Your task to perform on an android device: toggle translation in the chrome app Image 0: 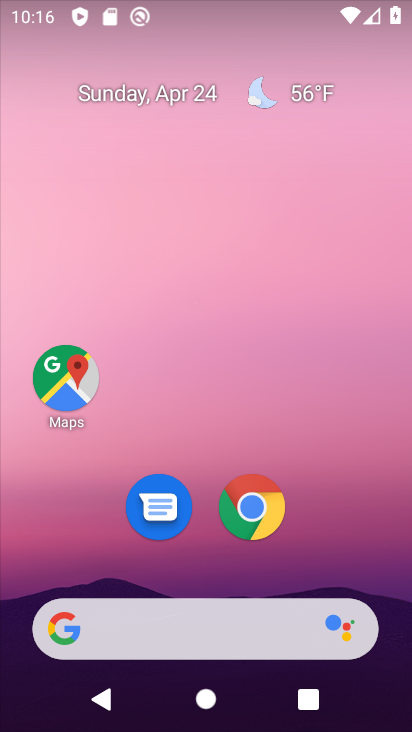
Step 0: click (249, 504)
Your task to perform on an android device: toggle translation in the chrome app Image 1: 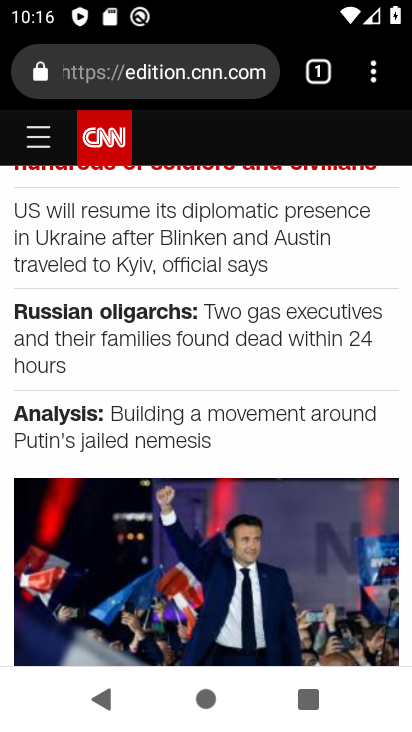
Step 1: click (373, 75)
Your task to perform on an android device: toggle translation in the chrome app Image 2: 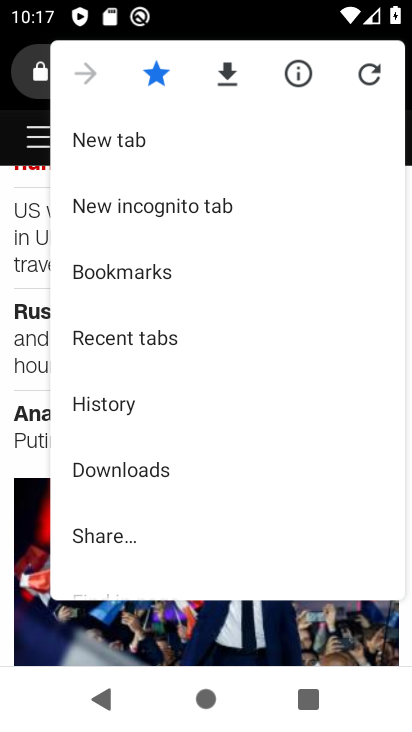
Step 2: drag from (207, 537) to (261, 175)
Your task to perform on an android device: toggle translation in the chrome app Image 3: 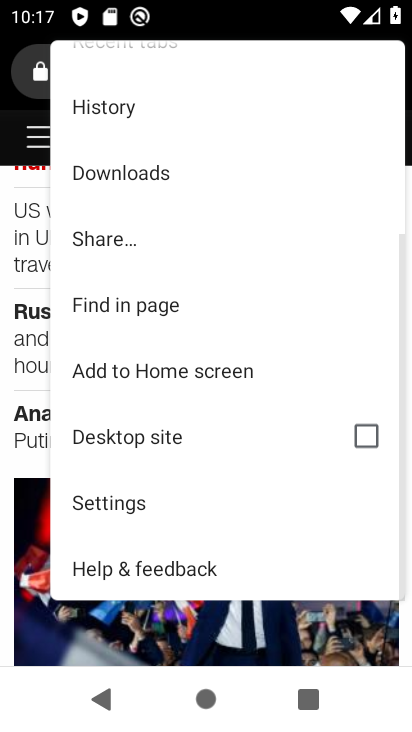
Step 3: drag from (248, 523) to (265, 200)
Your task to perform on an android device: toggle translation in the chrome app Image 4: 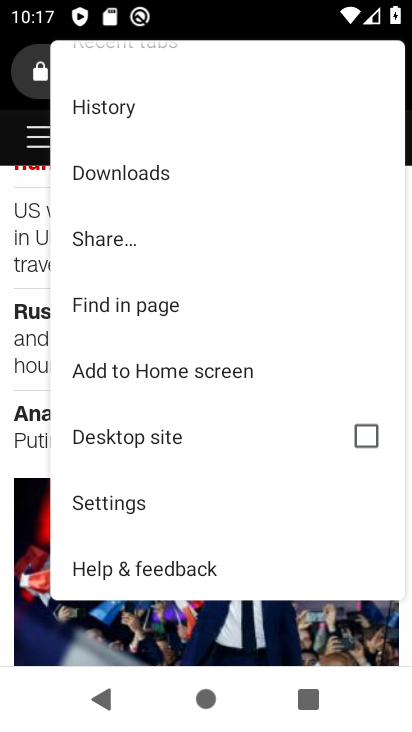
Step 4: click (89, 492)
Your task to perform on an android device: toggle translation in the chrome app Image 5: 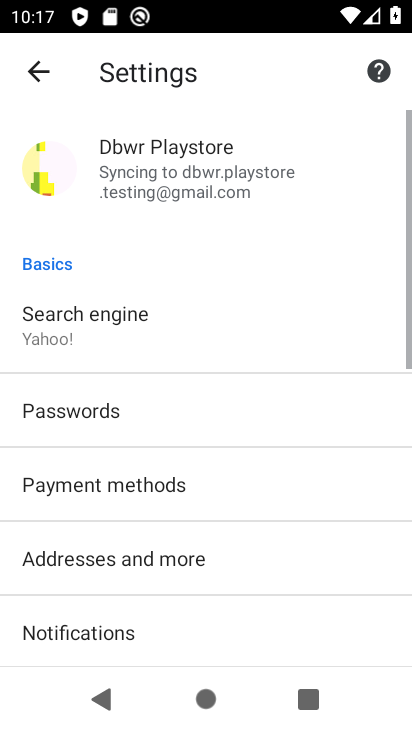
Step 5: drag from (259, 601) to (268, 145)
Your task to perform on an android device: toggle translation in the chrome app Image 6: 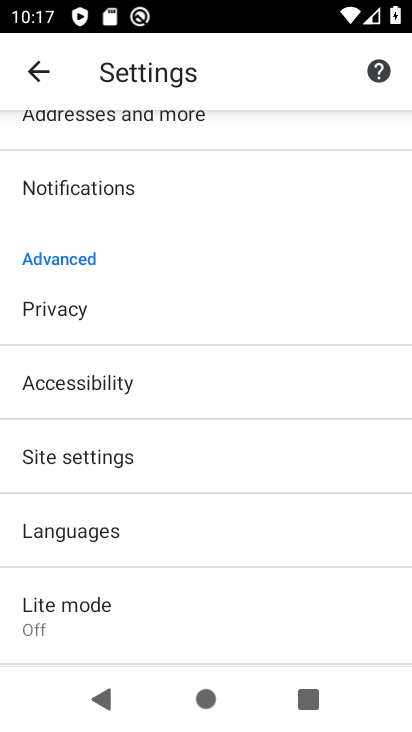
Step 6: drag from (221, 552) to (267, 123)
Your task to perform on an android device: toggle translation in the chrome app Image 7: 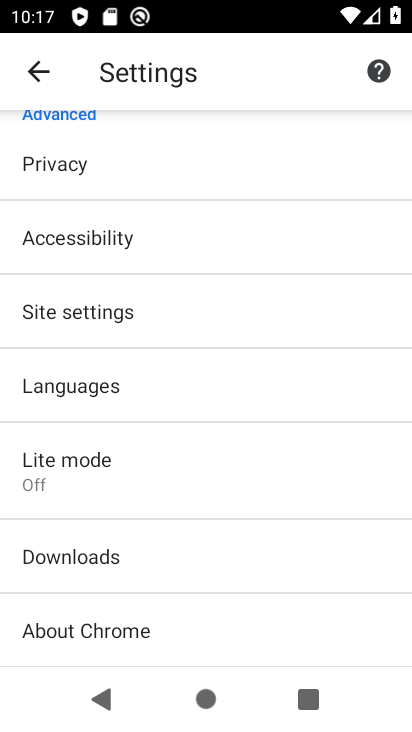
Step 7: click (52, 388)
Your task to perform on an android device: toggle translation in the chrome app Image 8: 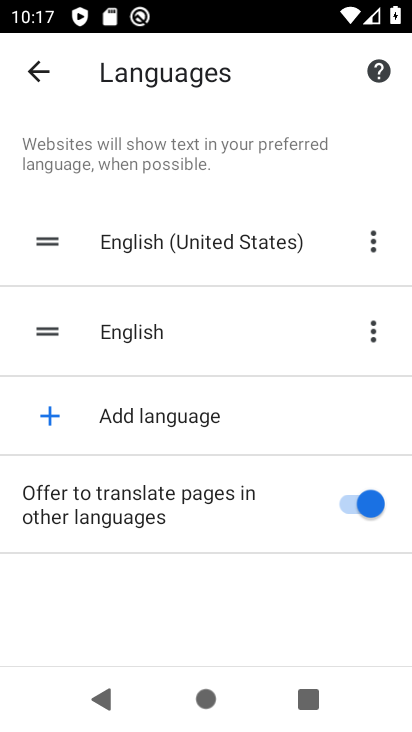
Step 8: click (344, 499)
Your task to perform on an android device: toggle translation in the chrome app Image 9: 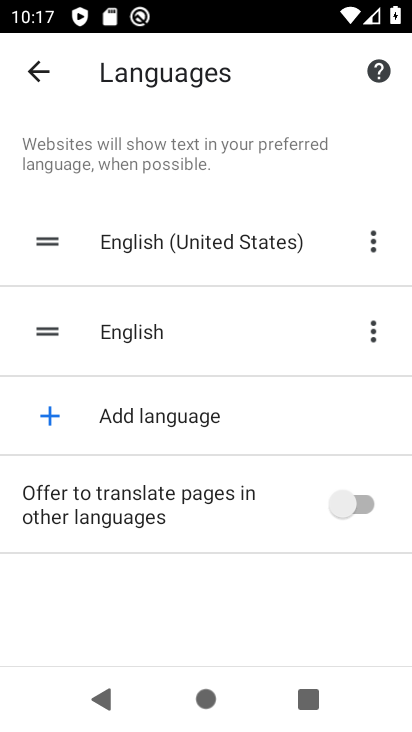
Step 9: task complete